Your task to perform on an android device: open app "Life360: Find Family & Friends" Image 0: 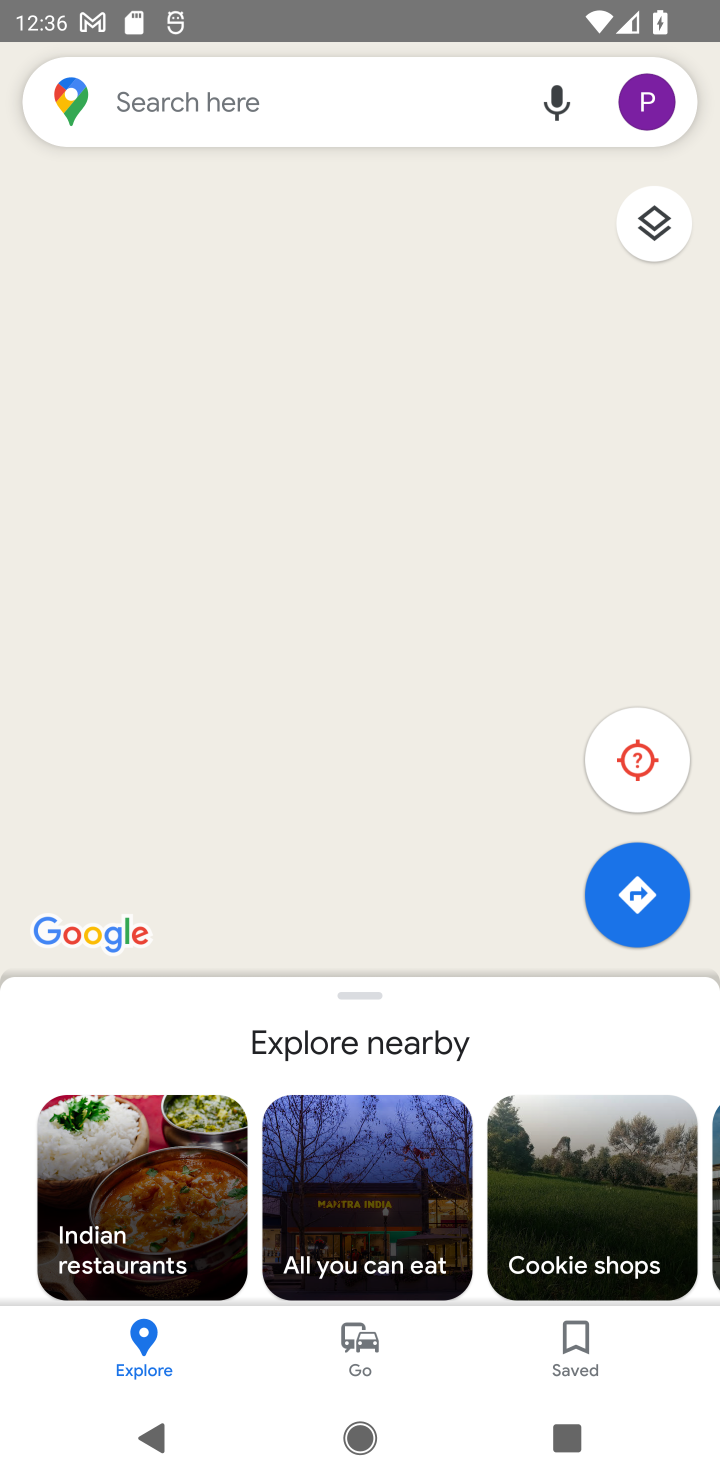
Step 0: press home button
Your task to perform on an android device: open app "Life360: Find Family & Friends" Image 1: 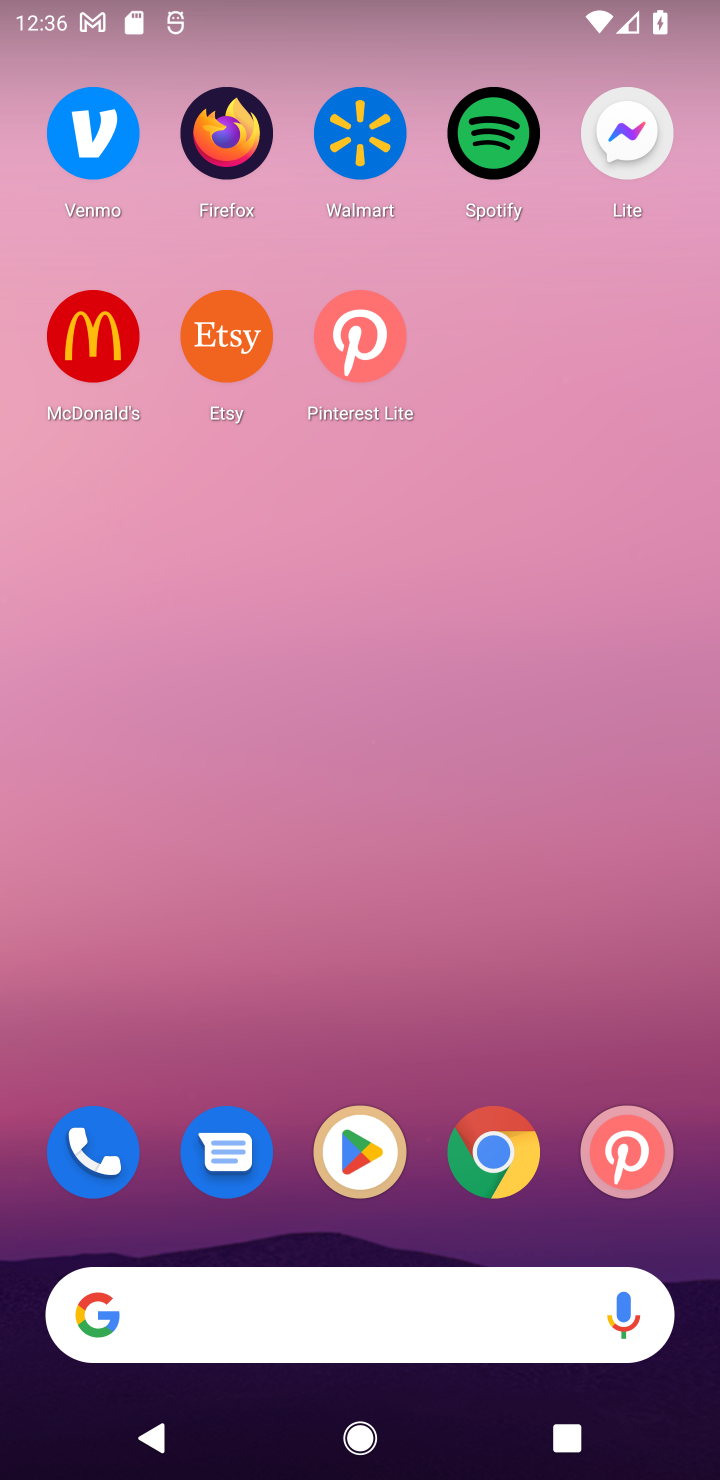
Step 1: click (362, 1158)
Your task to perform on an android device: open app "Life360: Find Family & Friends" Image 2: 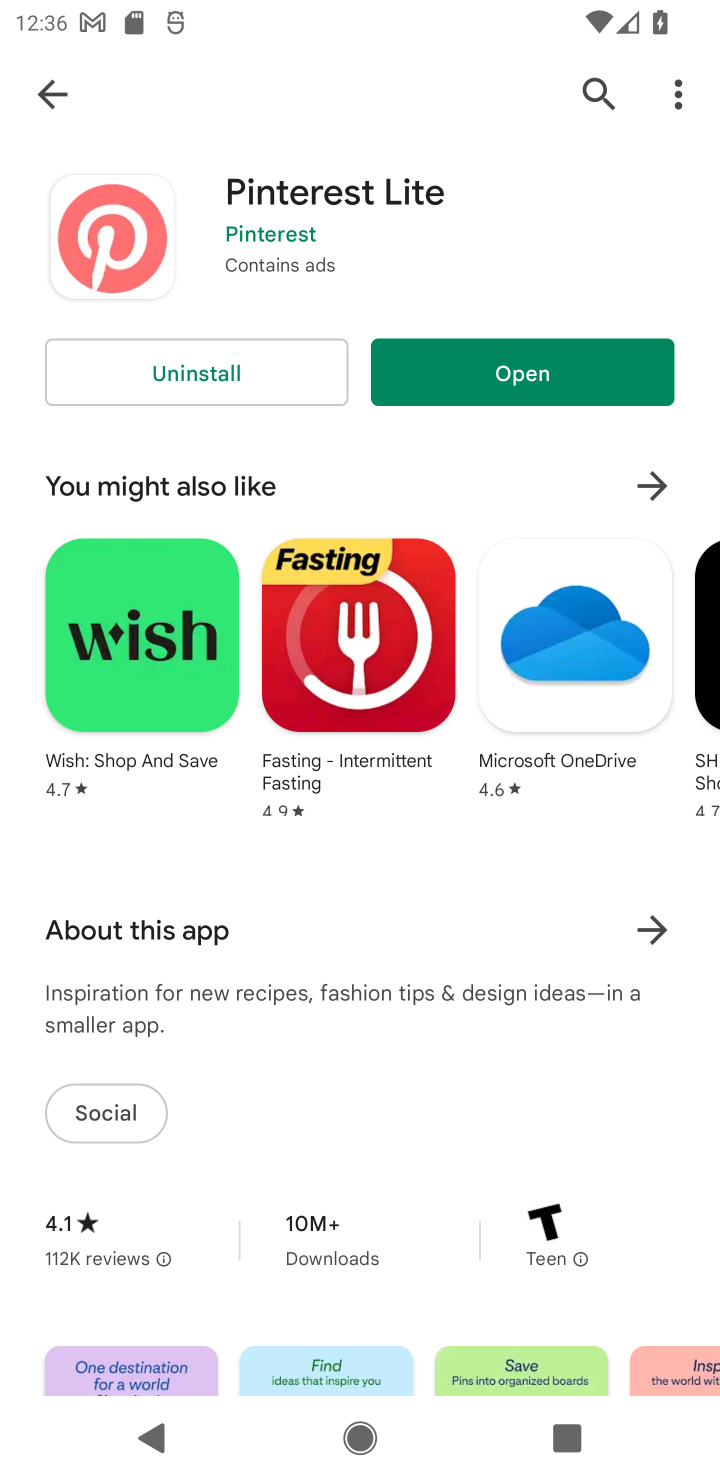
Step 2: click (48, 116)
Your task to perform on an android device: open app "Life360: Find Family & Friends" Image 3: 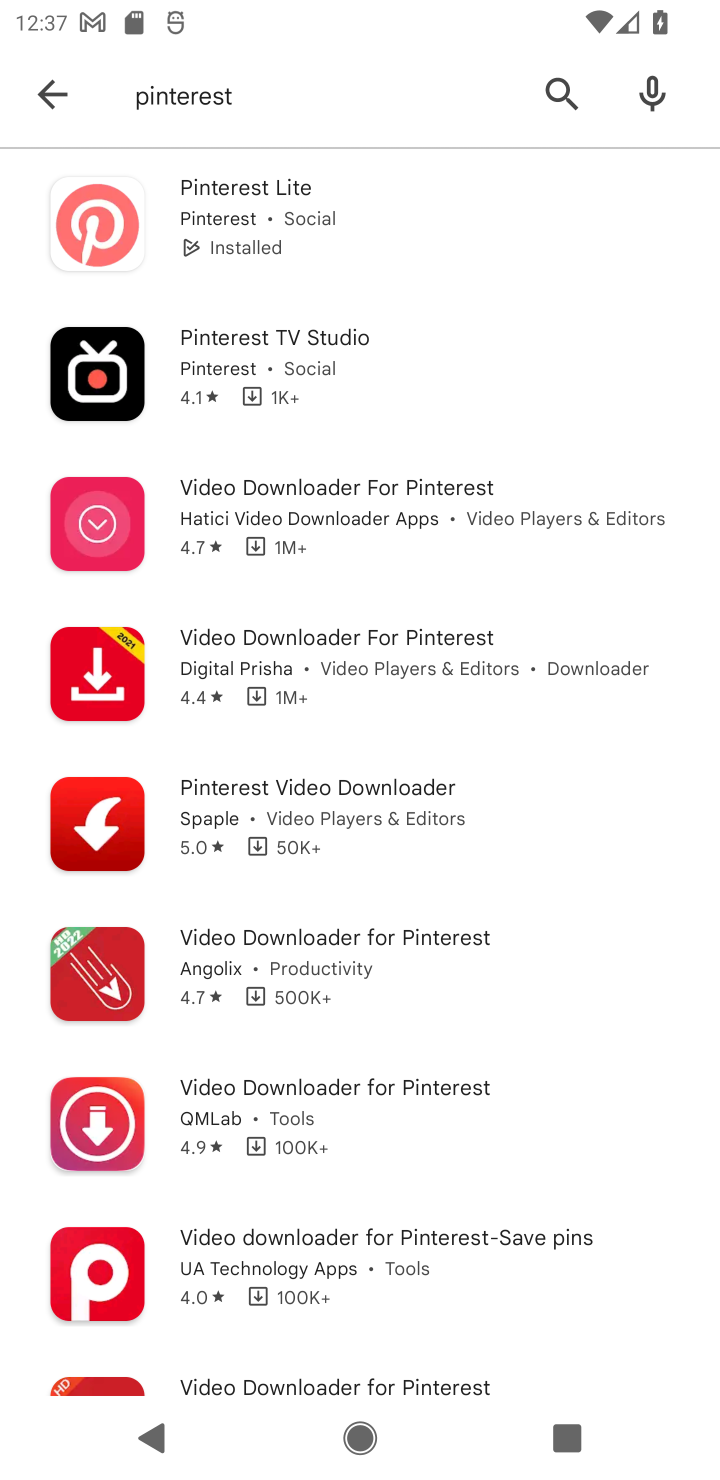
Step 3: click (48, 92)
Your task to perform on an android device: open app "Life360: Find Family & Friends" Image 4: 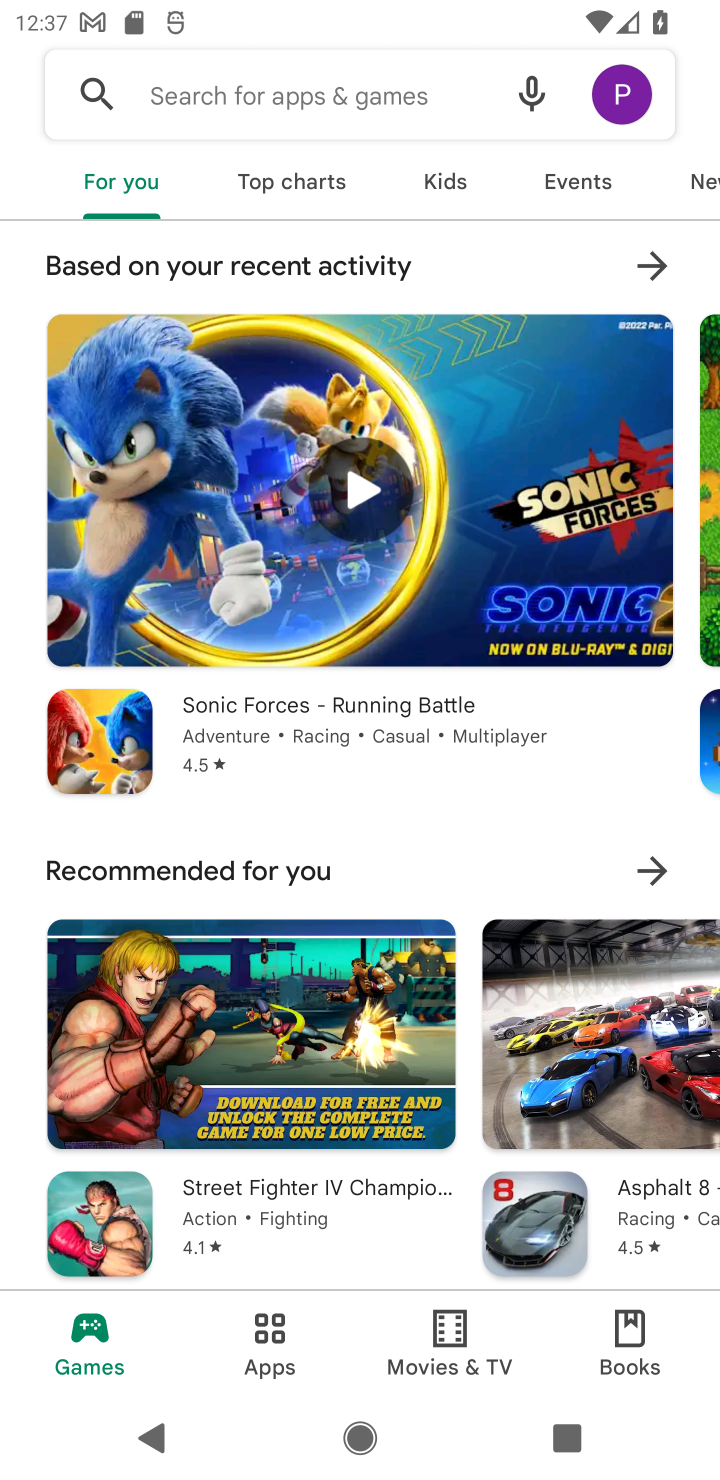
Step 4: click (183, 107)
Your task to perform on an android device: open app "Life360: Find Family & Friends" Image 5: 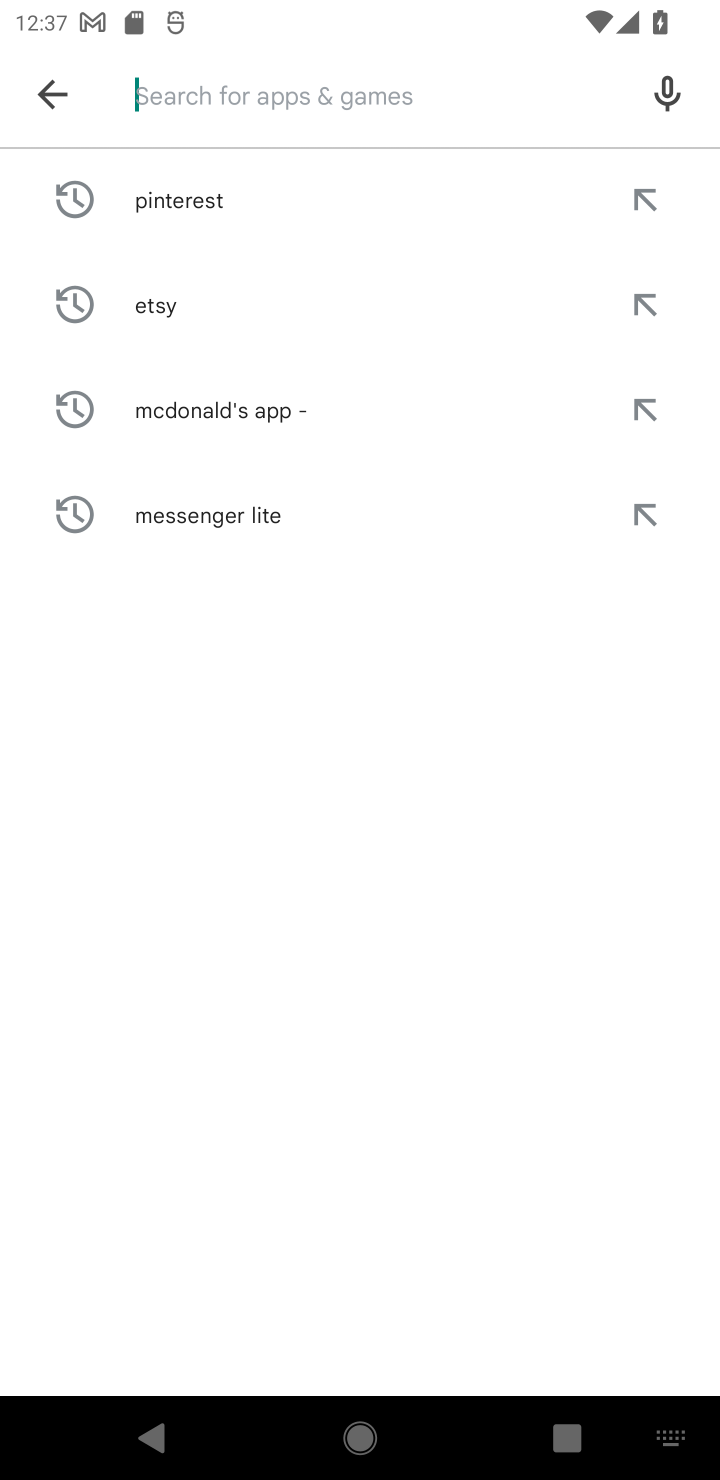
Step 5: type "Life360: Find Family & Friends"
Your task to perform on an android device: open app "Life360: Find Family & Friends" Image 6: 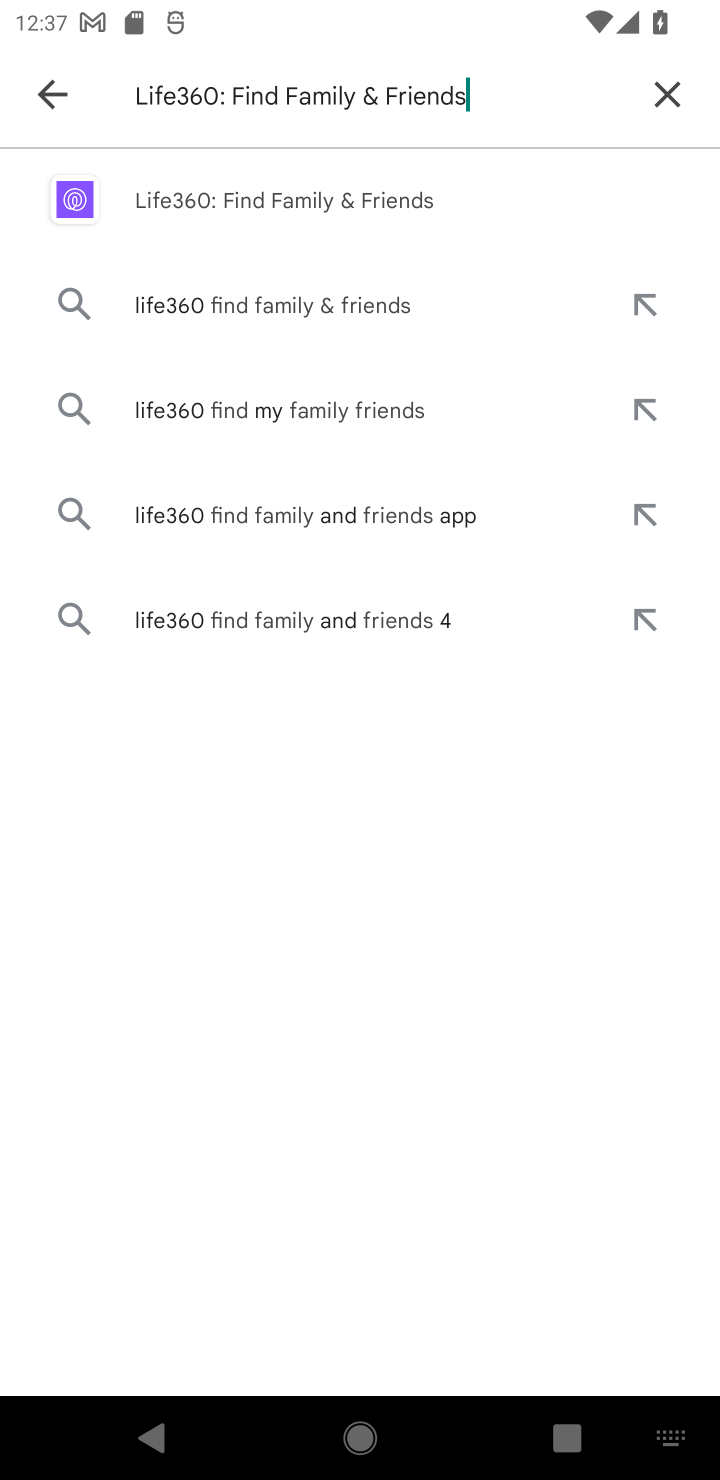
Step 6: click (329, 201)
Your task to perform on an android device: open app "Life360: Find Family & Friends" Image 7: 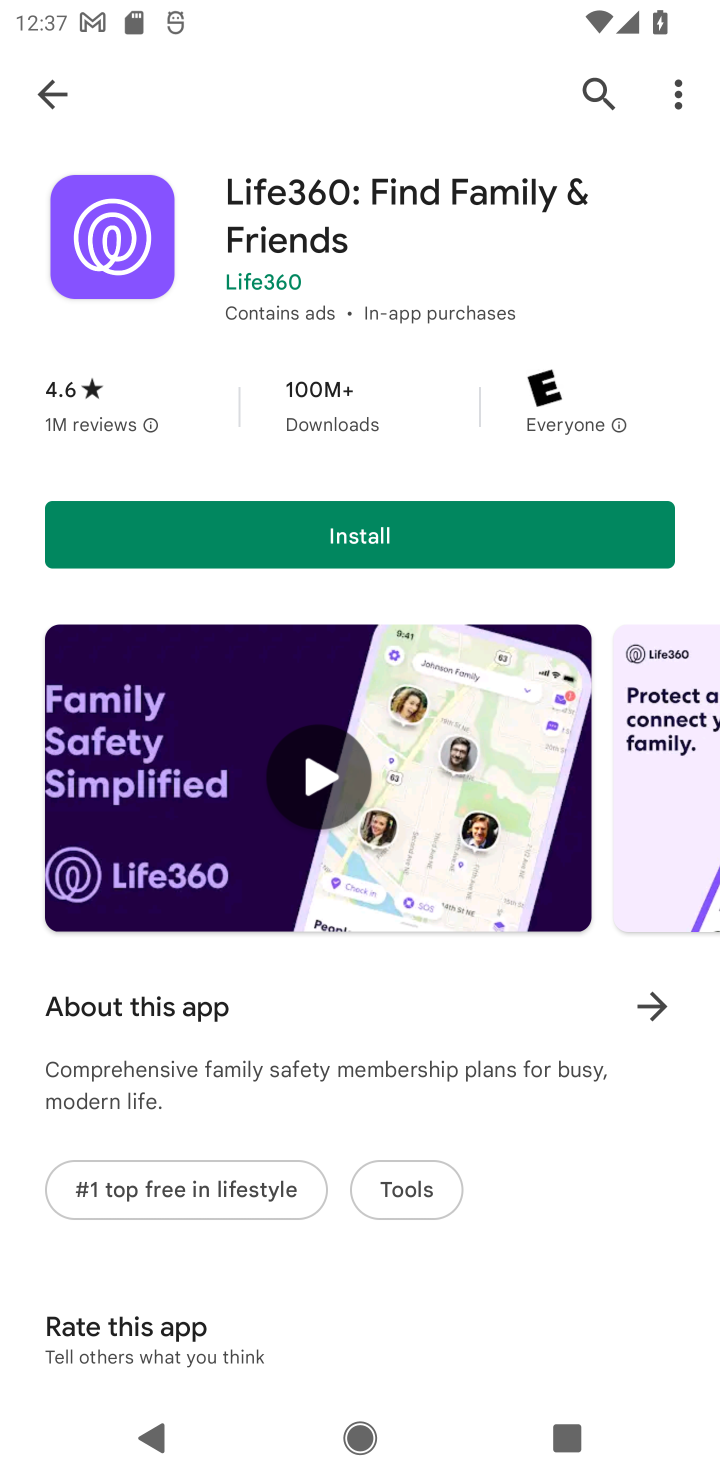
Step 7: click (372, 528)
Your task to perform on an android device: open app "Life360: Find Family & Friends" Image 8: 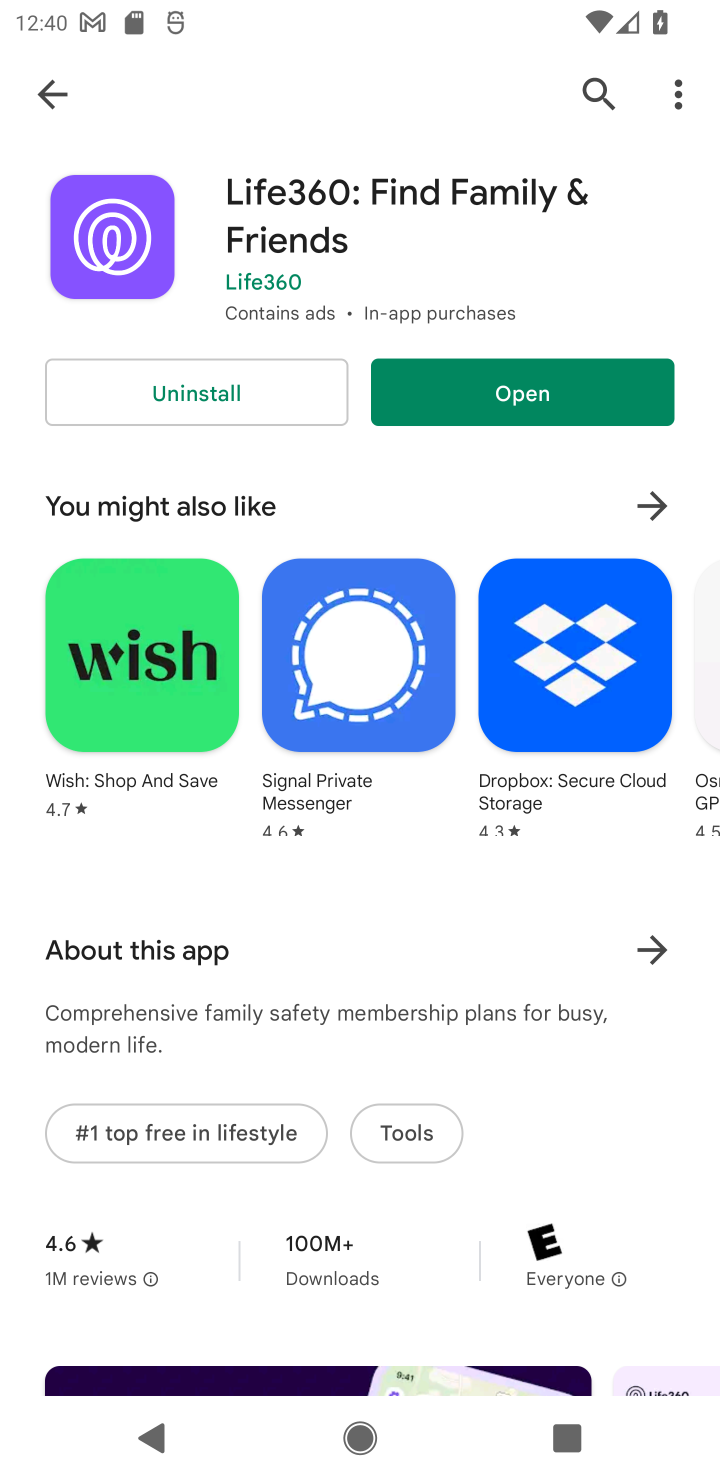
Step 8: click (498, 385)
Your task to perform on an android device: open app "Life360: Find Family & Friends" Image 9: 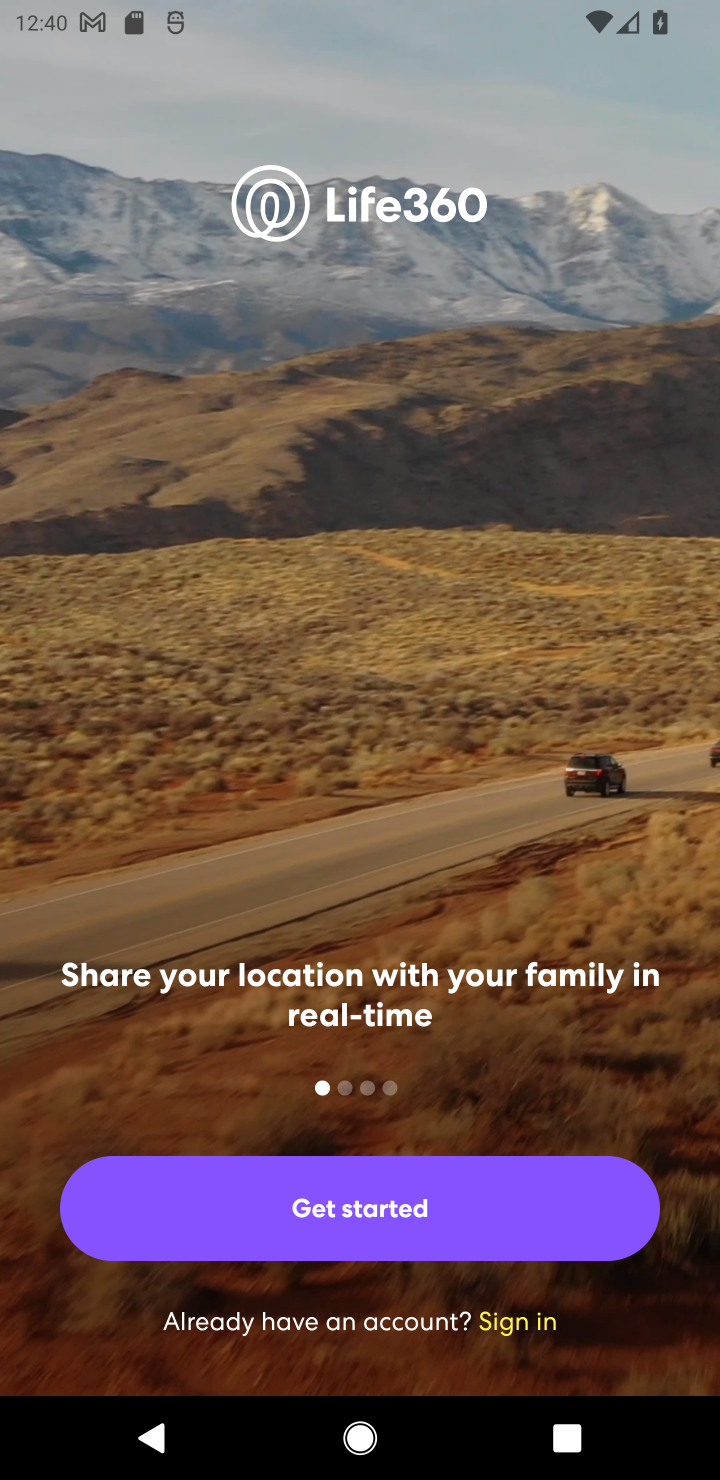
Step 9: task complete